Your task to perform on an android device: star an email in the gmail app Image 0: 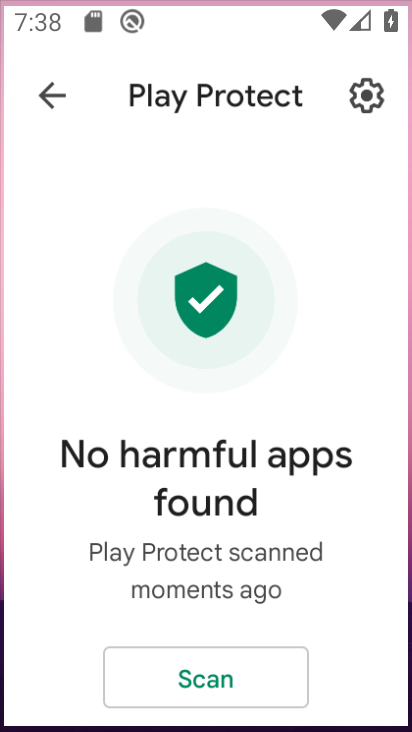
Step 0: press home button
Your task to perform on an android device: star an email in the gmail app Image 1: 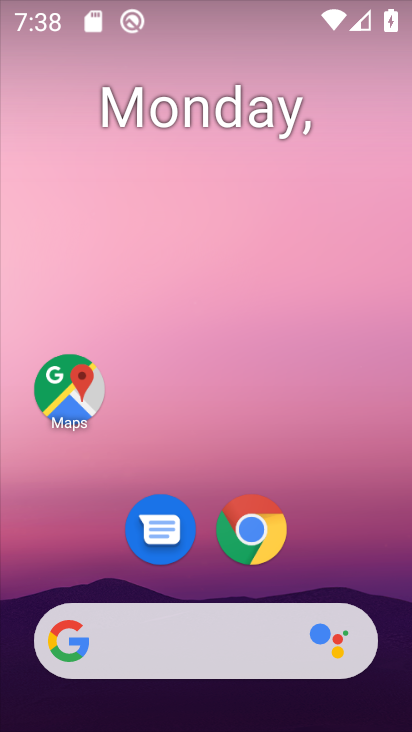
Step 1: drag from (195, 583) to (196, 141)
Your task to perform on an android device: star an email in the gmail app Image 2: 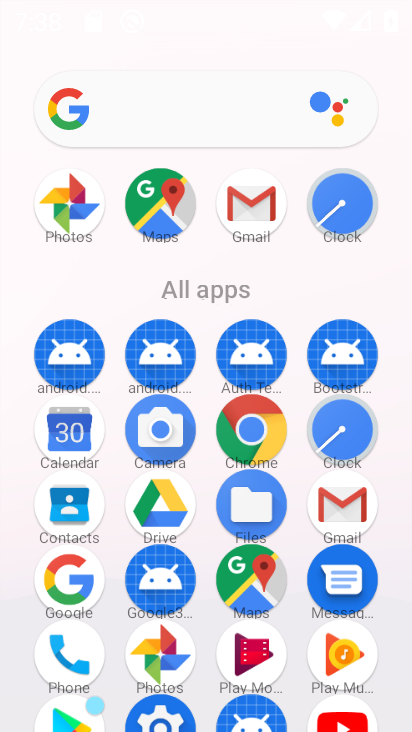
Step 2: click (347, 513)
Your task to perform on an android device: star an email in the gmail app Image 3: 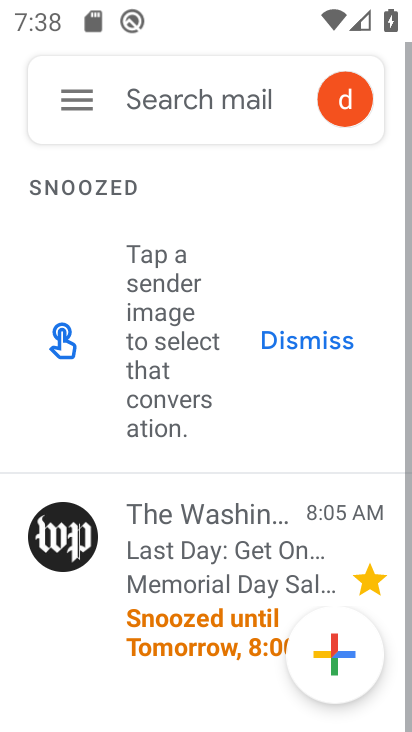
Step 3: click (78, 93)
Your task to perform on an android device: star an email in the gmail app Image 4: 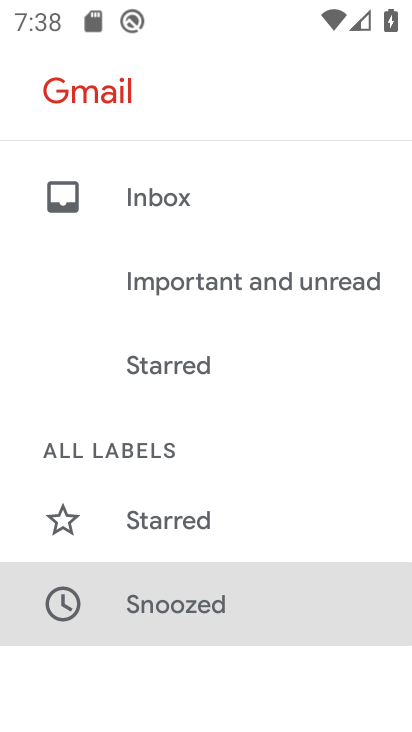
Step 4: click (161, 197)
Your task to perform on an android device: star an email in the gmail app Image 5: 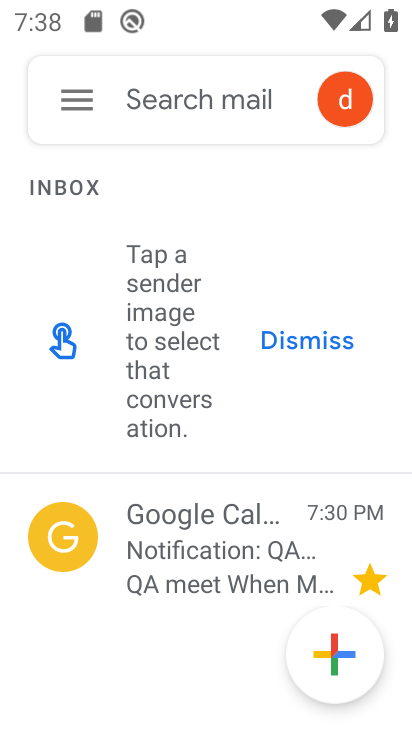
Step 5: task complete